Your task to perform on an android device: Go to Reddit.com Image 0: 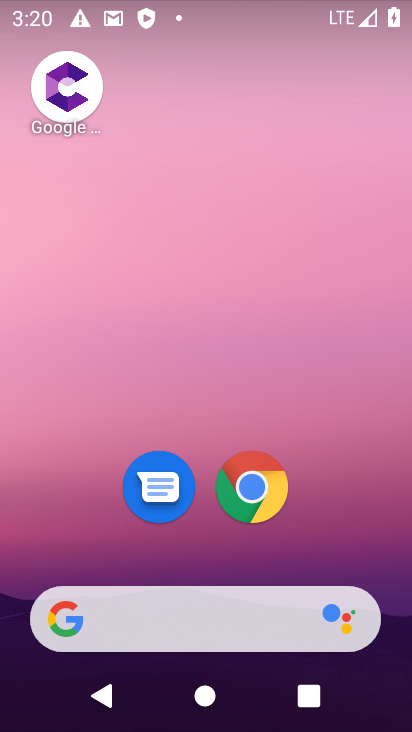
Step 0: drag from (325, 536) to (215, 8)
Your task to perform on an android device: Go to Reddit.com Image 1: 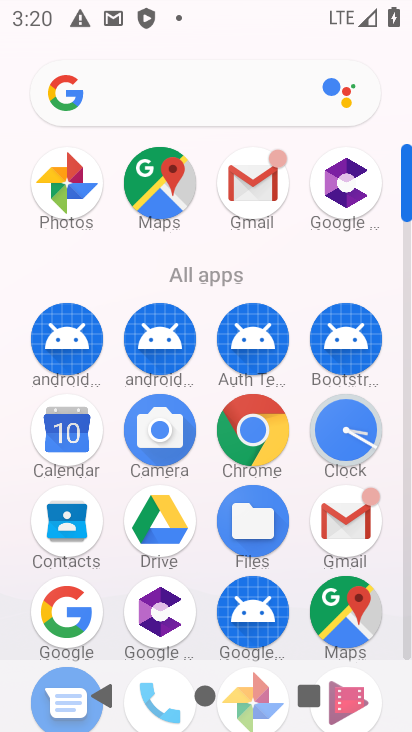
Step 1: click (251, 427)
Your task to perform on an android device: Go to Reddit.com Image 2: 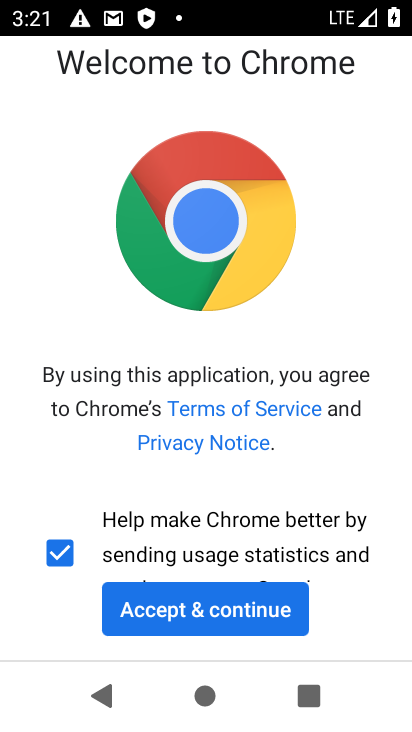
Step 2: click (166, 611)
Your task to perform on an android device: Go to Reddit.com Image 3: 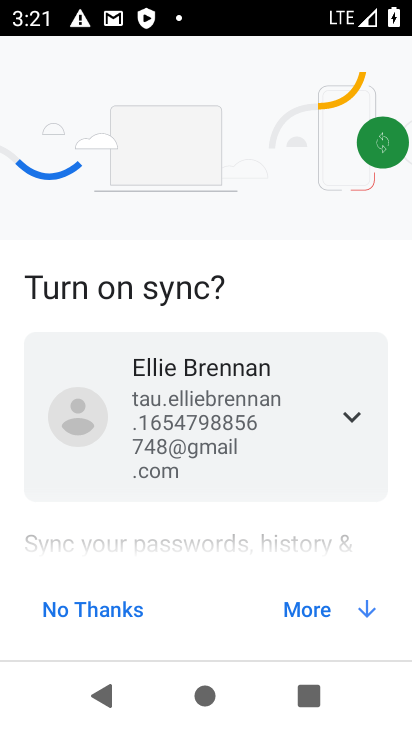
Step 3: click (328, 596)
Your task to perform on an android device: Go to Reddit.com Image 4: 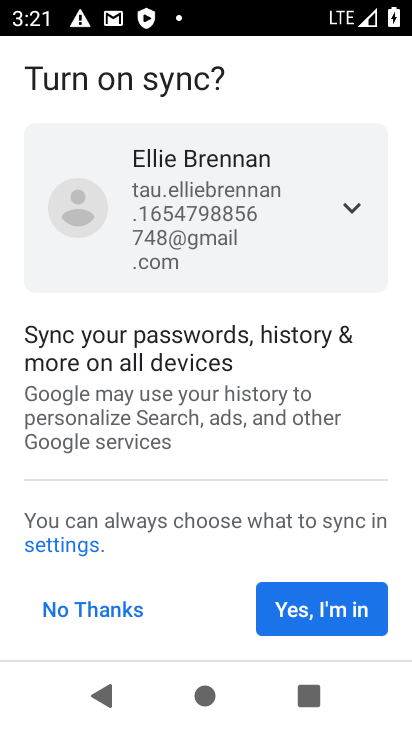
Step 4: click (326, 599)
Your task to perform on an android device: Go to Reddit.com Image 5: 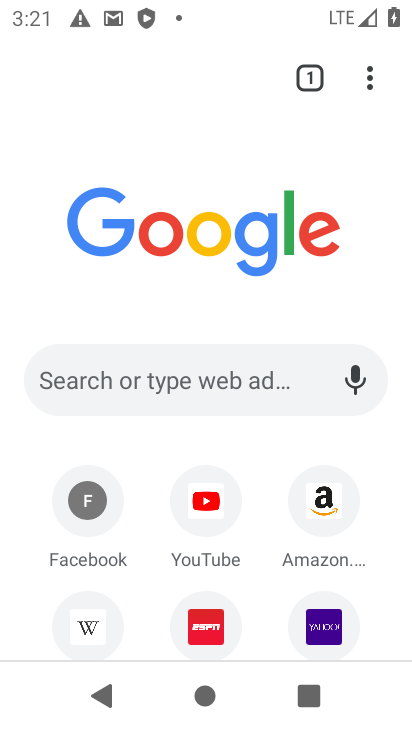
Step 5: click (199, 384)
Your task to perform on an android device: Go to Reddit.com Image 6: 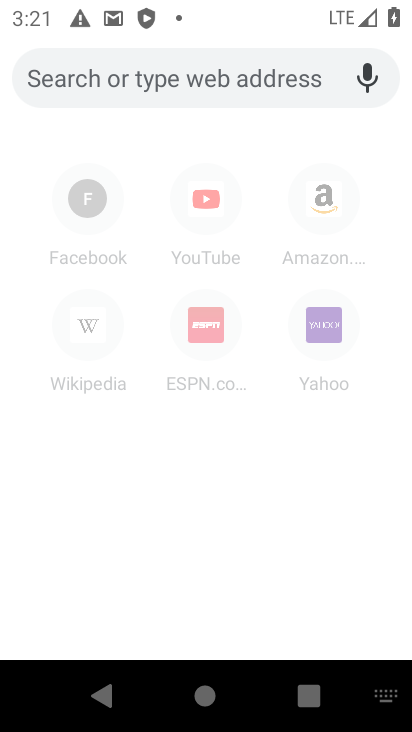
Step 6: type "reddit.com"
Your task to perform on an android device: Go to Reddit.com Image 7: 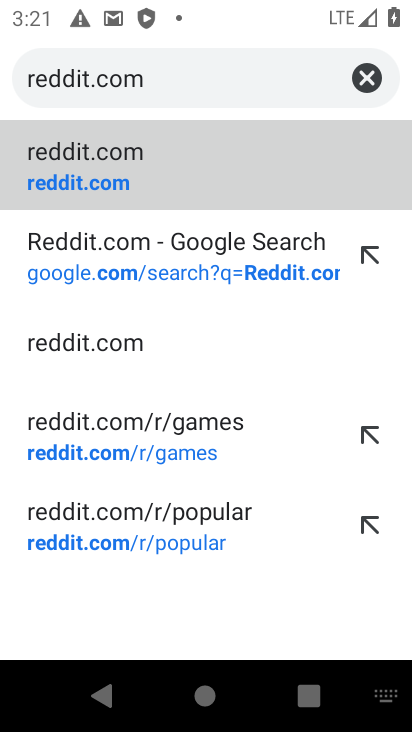
Step 7: click (98, 152)
Your task to perform on an android device: Go to Reddit.com Image 8: 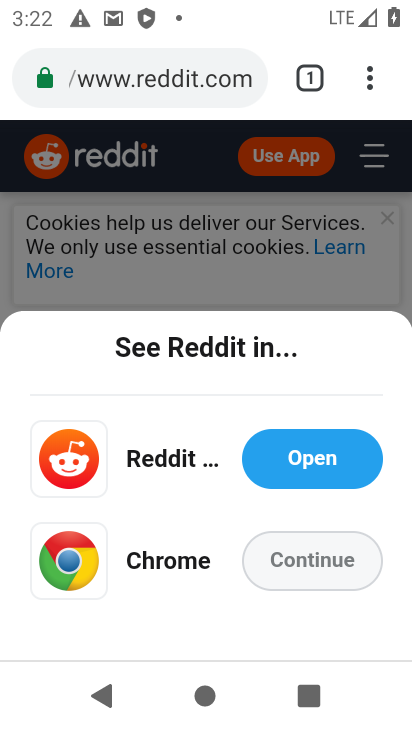
Step 8: task complete